Your task to perform on an android device: Go to privacy settings Image 0: 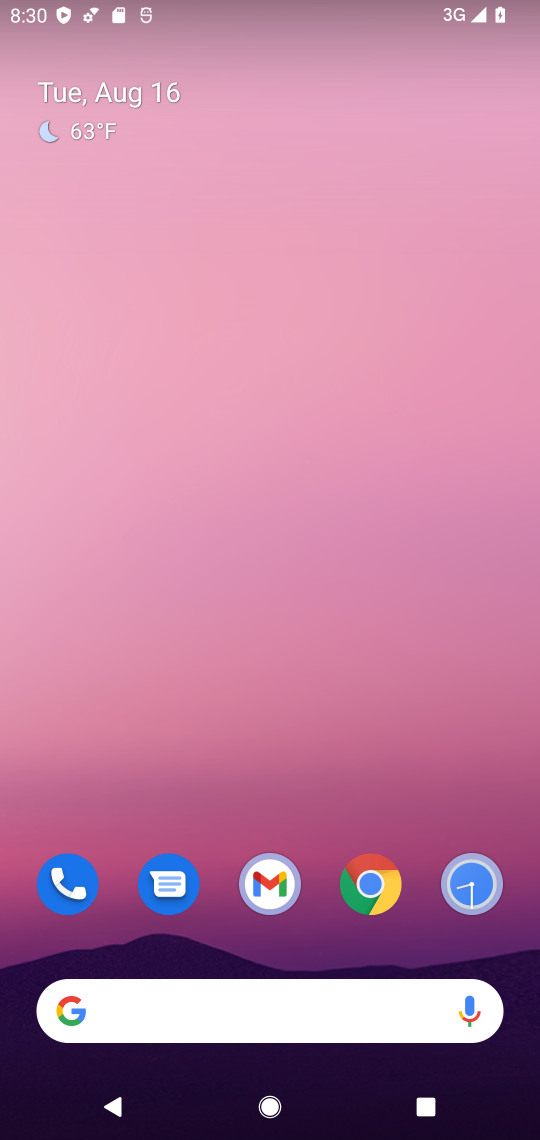
Step 0: drag from (421, 920) to (389, 90)
Your task to perform on an android device: Go to privacy settings Image 1: 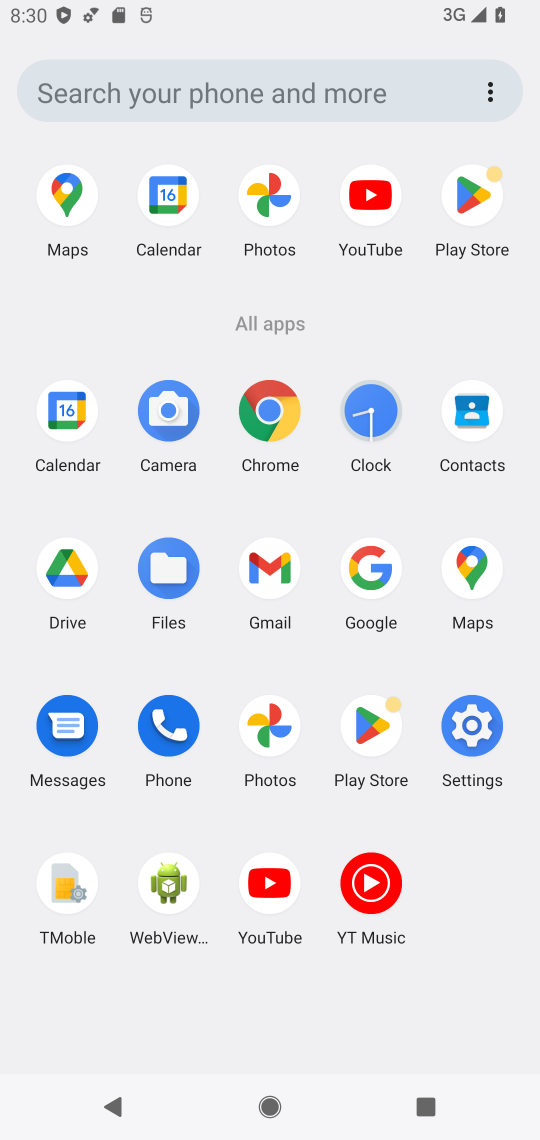
Step 1: click (473, 725)
Your task to perform on an android device: Go to privacy settings Image 2: 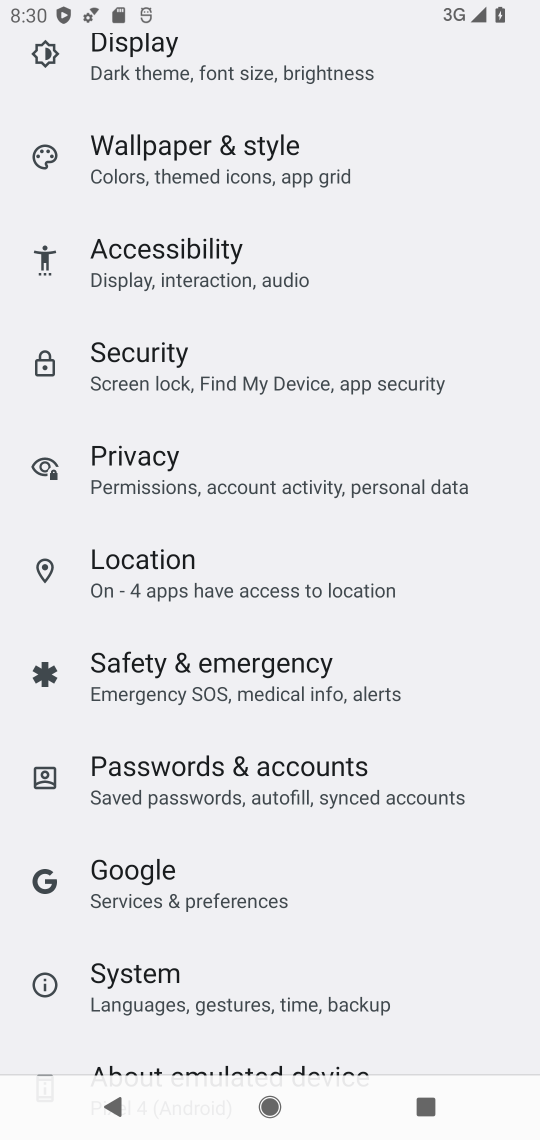
Step 2: click (142, 458)
Your task to perform on an android device: Go to privacy settings Image 3: 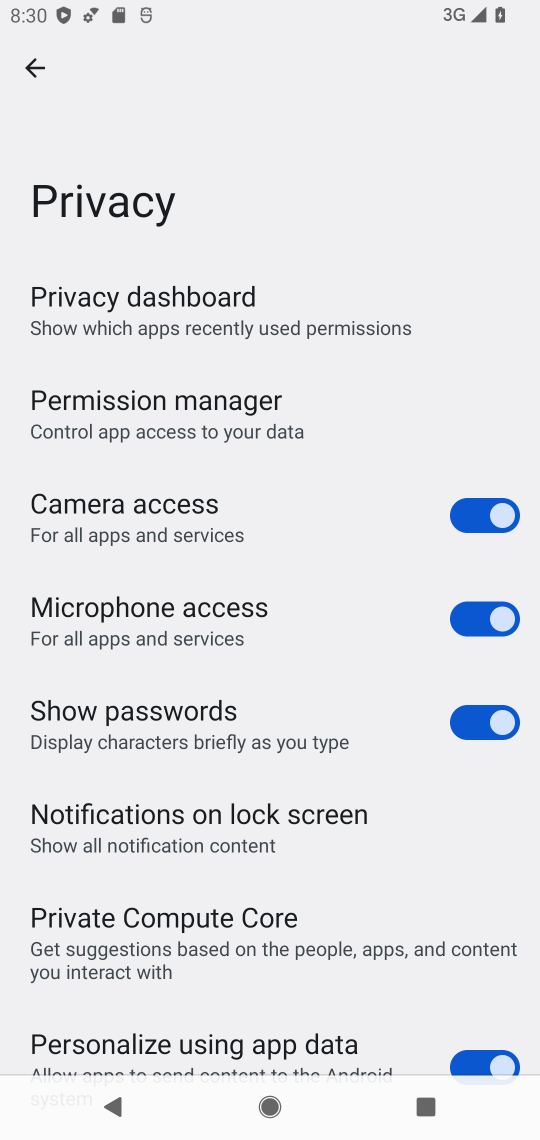
Step 3: task complete